Your task to perform on an android device: move an email to a new category in the gmail app Image 0: 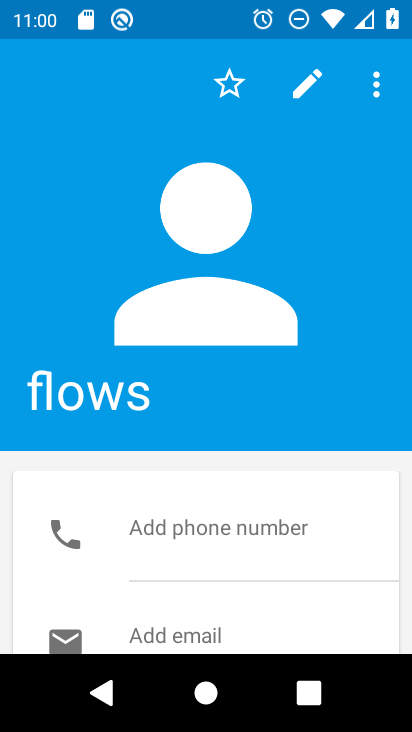
Step 0: press home button
Your task to perform on an android device: move an email to a new category in the gmail app Image 1: 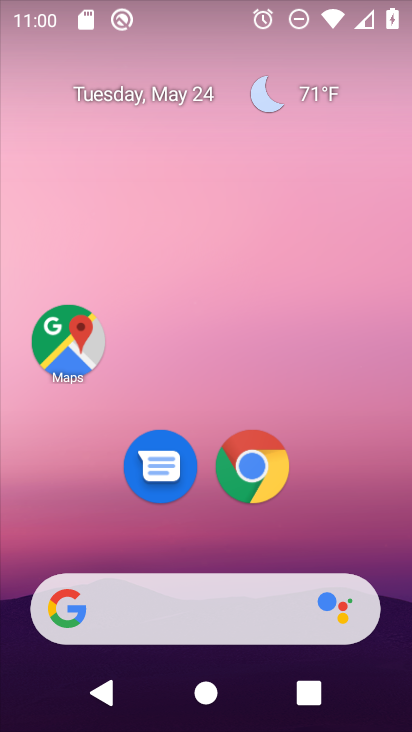
Step 1: drag from (199, 542) to (264, 67)
Your task to perform on an android device: move an email to a new category in the gmail app Image 2: 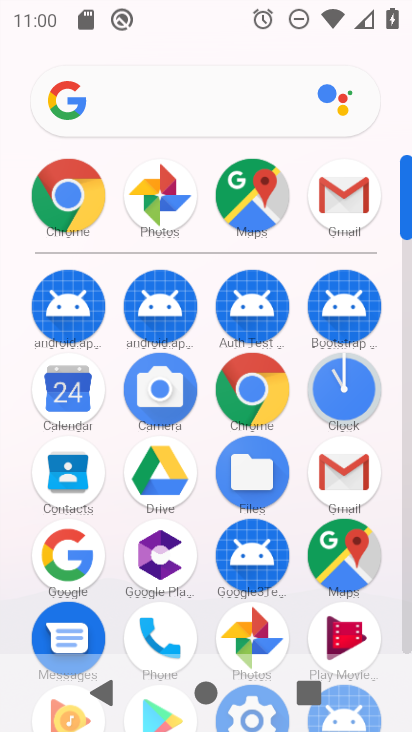
Step 2: click (351, 554)
Your task to perform on an android device: move an email to a new category in the gmail app Image 3: 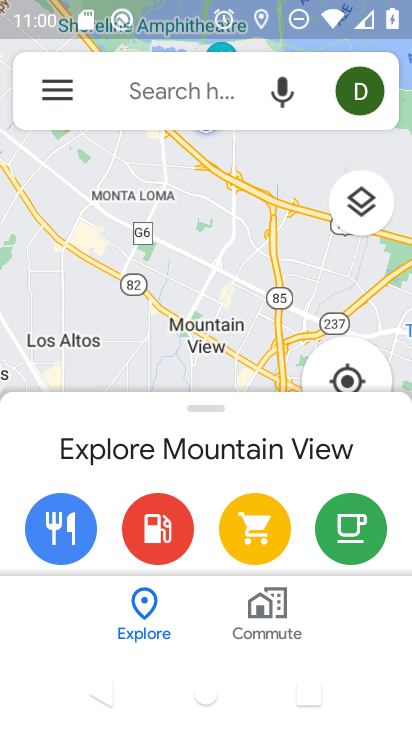
Step 3: press home button
Your task to perform on an android device: move an email to a new category in the gmail app Image 4: 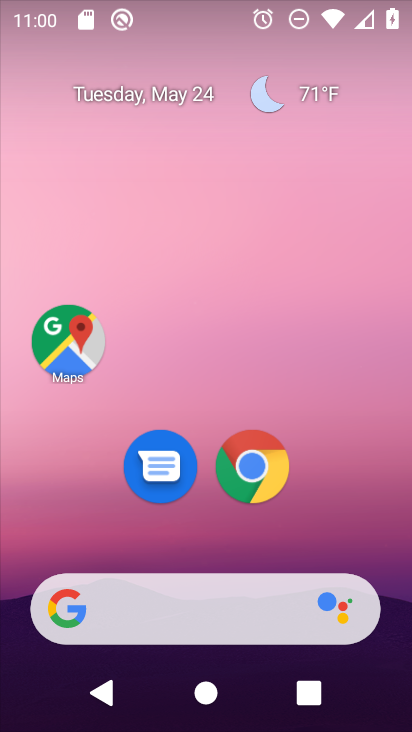
Step 4: drag from (221, 541) to (256, 190)
Your task to perform on an android device: move an email to a new category in the gmail app Image 5: 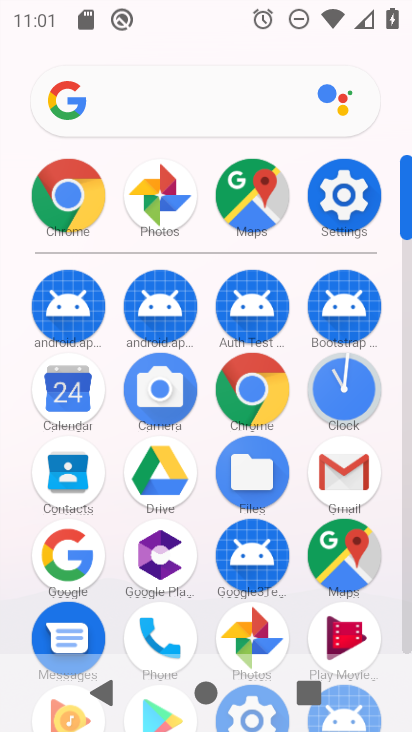
Step 5: click (345, 478)
Your task to perform on an android device: move an email to a new category in the gmail app Image 6: 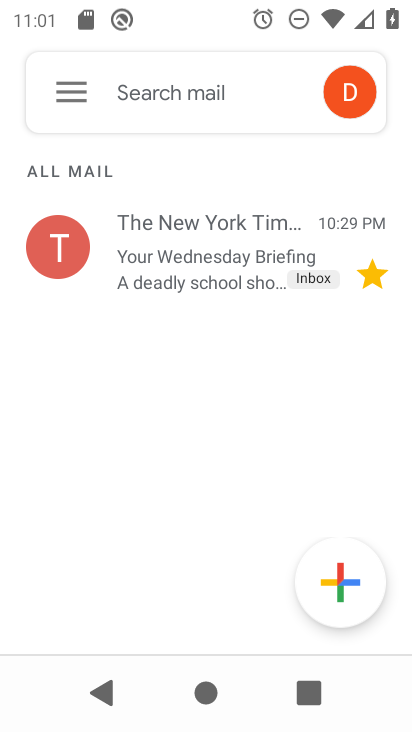
Step 6: click (56, 233)
Your task to perform on an android device: move an email to a new category in the gmail app Image 7: 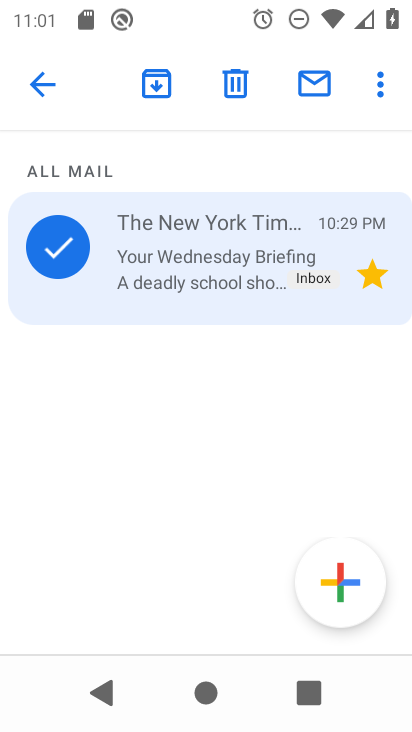
Step 7: click (368, 80)
Your task to perform on an android device: move an email to a new category in the gmail app Image 8: 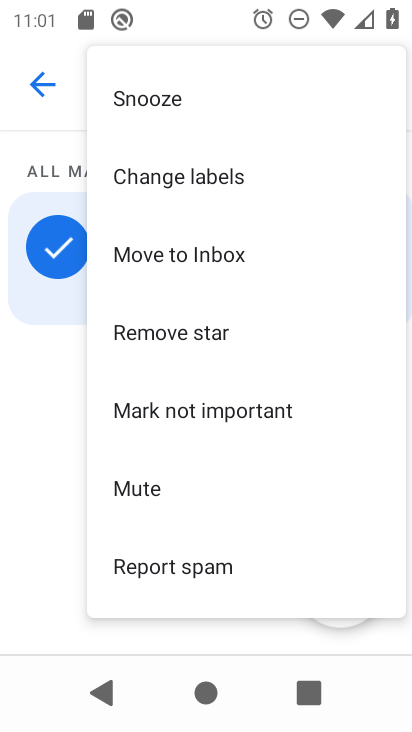
Step 8: click (216, 338)
Your task to perform on an android device: move an email to a new category in the gmail app Image 9: 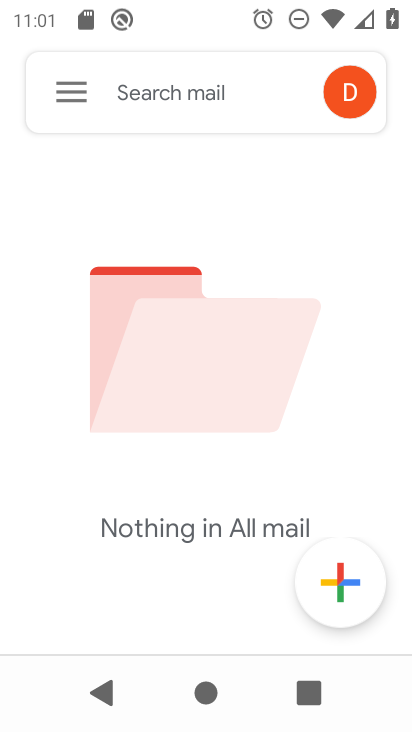
Step 9: task complete